Your task to perform on an android device: open a bookmark in the chrome app Image 0: 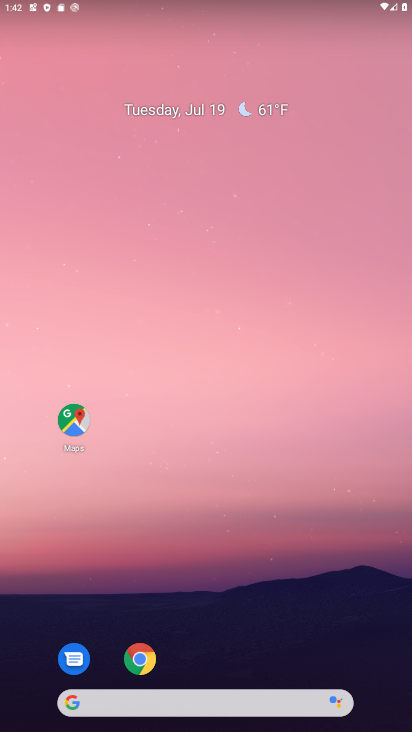
Step 0: click (153, 661)
Your task to perform on an android device: open a bookmark in the chrome app Image 1: 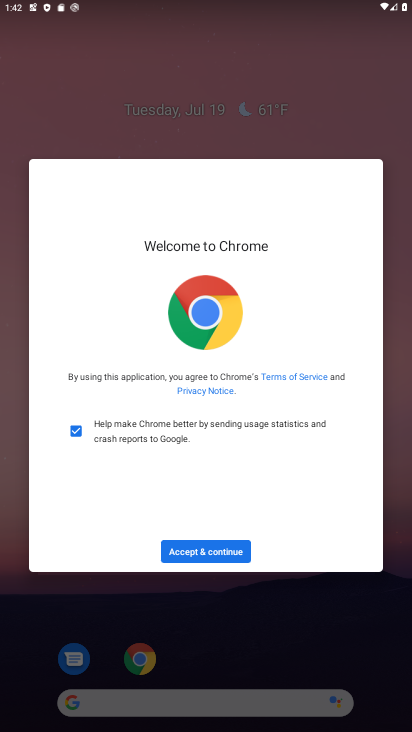
Step 1: click (195, 543)
Your task to perform on an android device: open a bookmark in the chrome app Image 2: 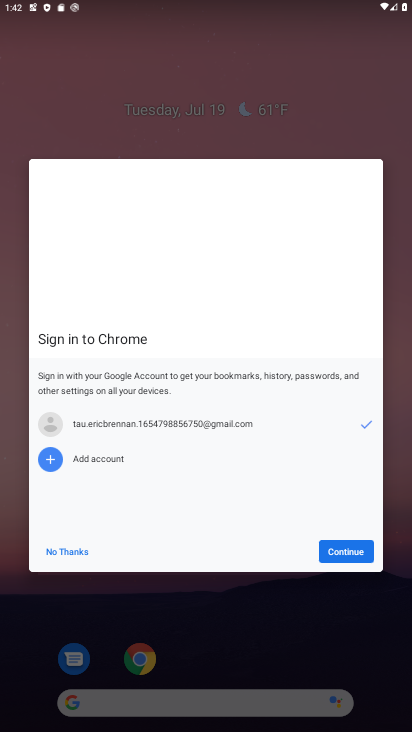
Step 2: click (339, 541)
Your task to perform on an android device: open a bookmark in the chrome app Image 3: 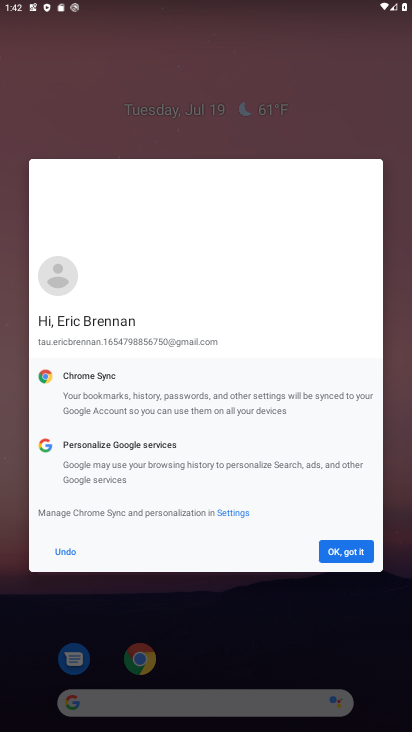
Step 3: click (339, 541)
Your task to perform on an android device: open a bookmark in the chrome app Image 4: 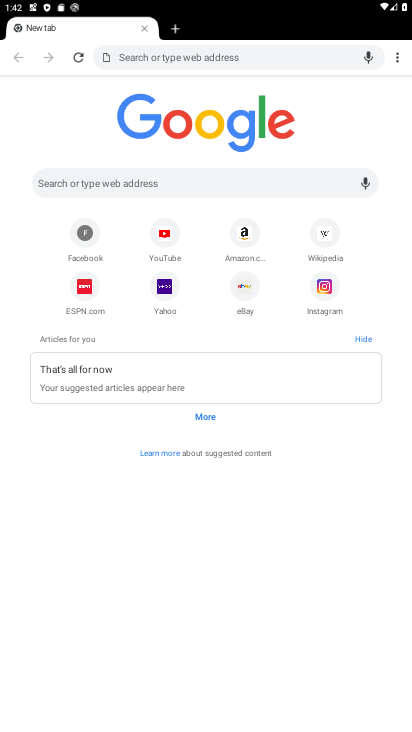
Step 4: click (395, 60)
Your task to perform on an android device: open a bookmark in the chrome app Image 5: 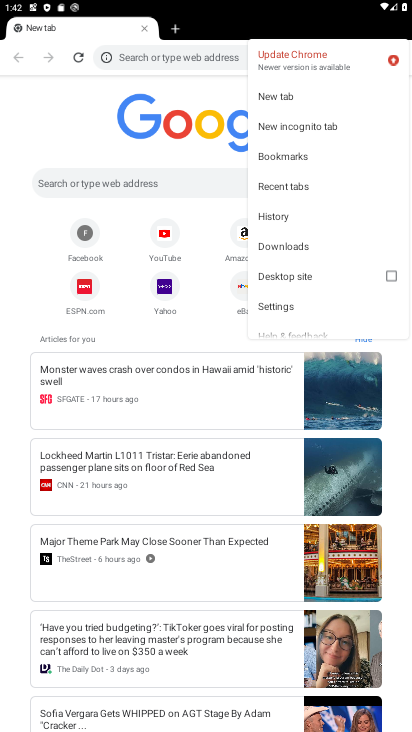
Step 5: click (292, 157)
Your task to perform on an android device: open a bookmark in the chrome app Image 6: 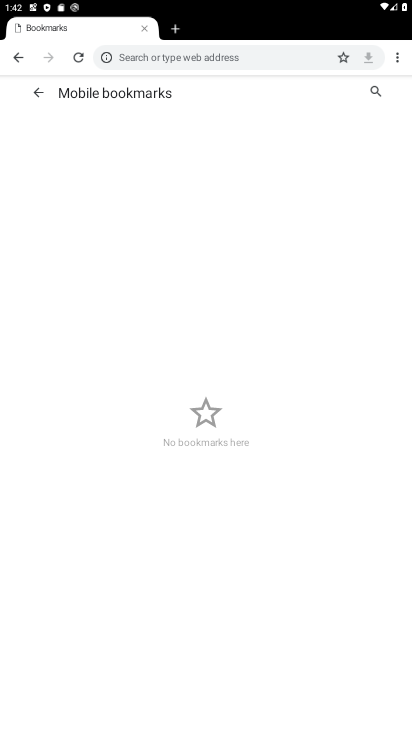
Step 6: task complete